Your task to perform on an android device: add a contact in the contacts app Image 0: 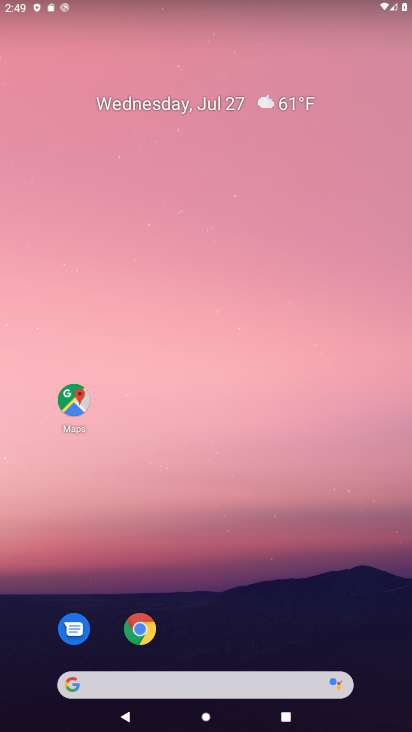
Step 0: drag from (305, 625) to (233, 139)
Your task to perform on an android device: add a contact in the contacts app Image 1: 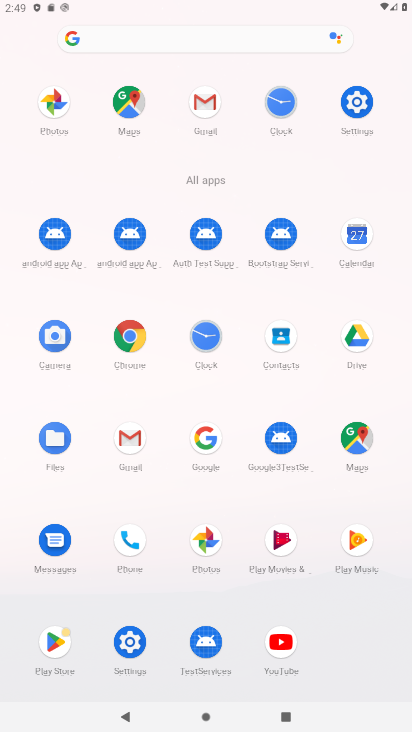
Step 1: click (284, 347)
Your task to perform on an android device: add a contact in the contacts app Image 2: 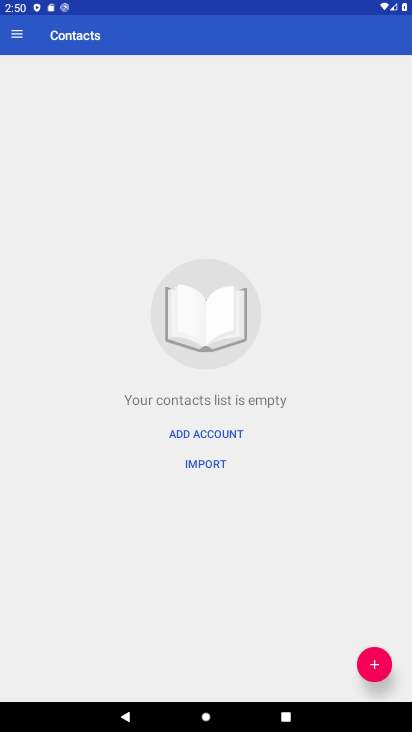
Step 2: click (373, 663)
Your task to perform on an android device: add a contact in the contacts app Image 3: 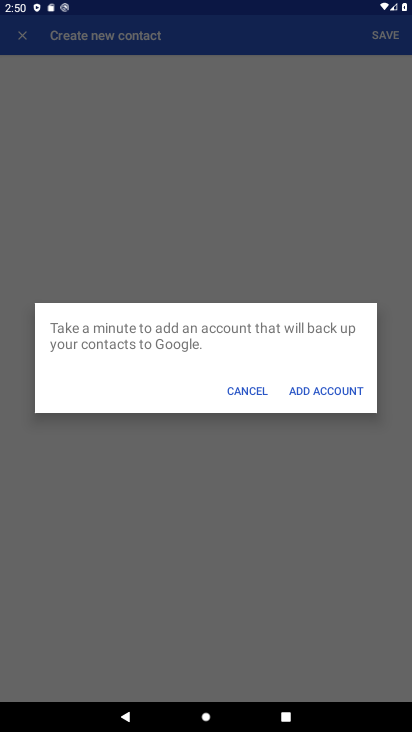
Step 3: click (330, 388)
Your task to perform on an android device: add a contact in the contacts app Image 4: 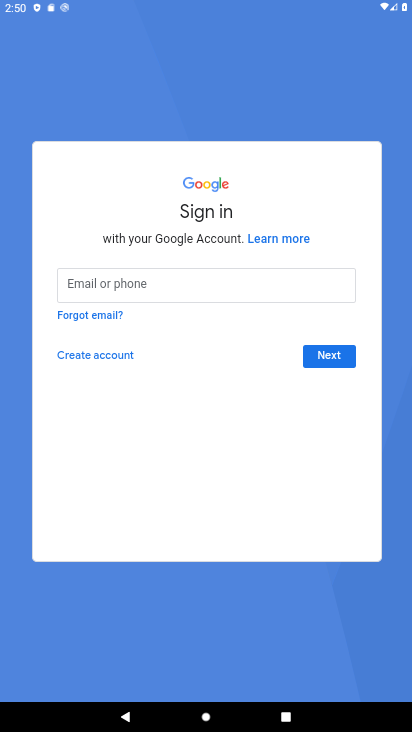
Step 4: task complete